Your task to perform on an android device: manage bookmarks in the chrome app Image 0: 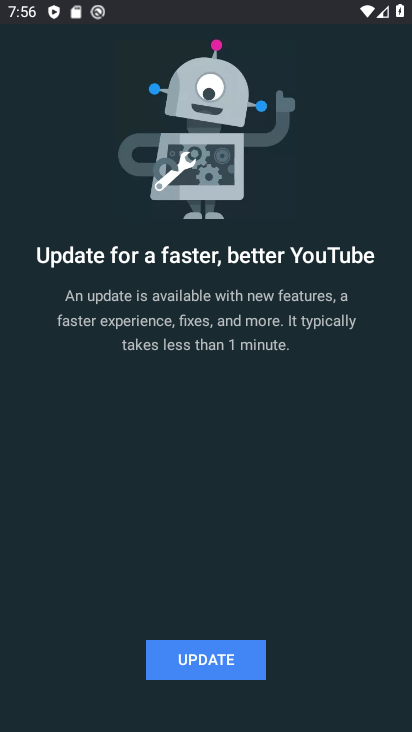
Step 0: press home button
Your task to perform on an android device: manage bookmarks in the chrome app Image 1: 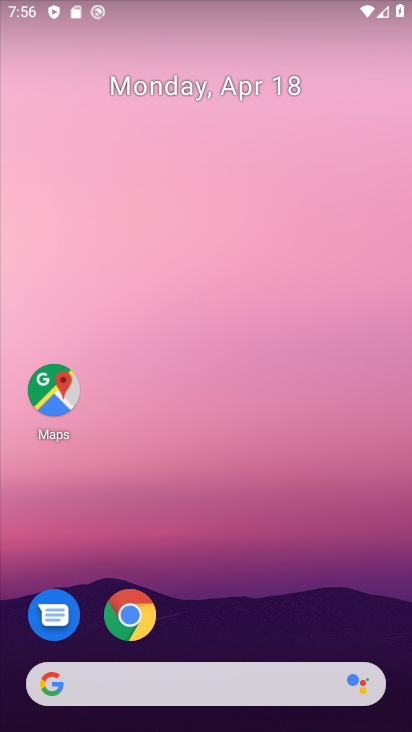
Step 1: click (134, 608)
Your task to perform on an android device: manage bookmarks in the chrome app Image 2: 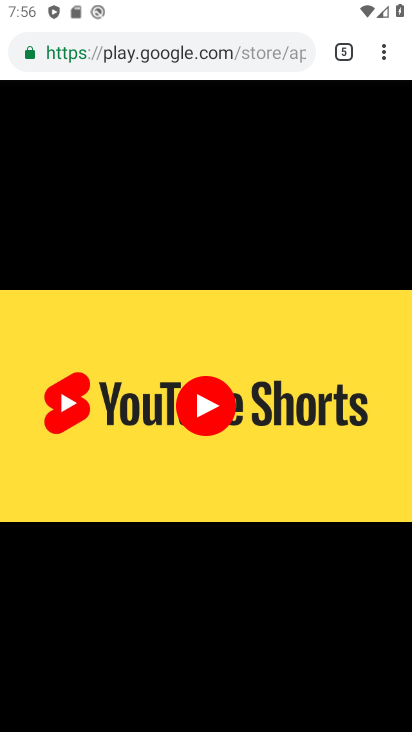
Step 2: click (385, 48)
Your task to perform on an android device: manage bookmarks in the chrome app Image 3: 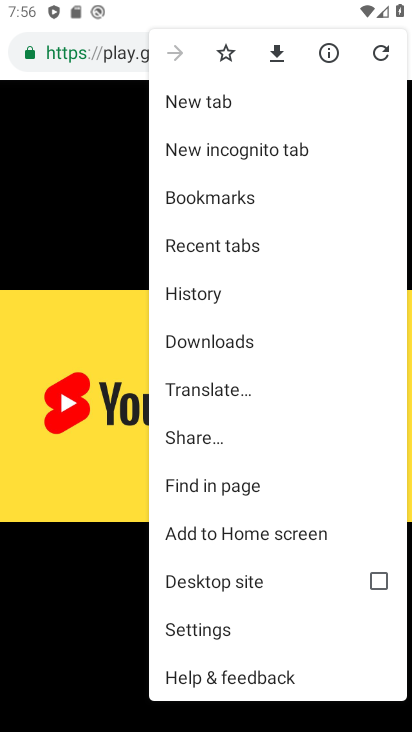
Step 3: click (251, 197)
Your task to perform on an android device: manage bookmarks in the chrome app Image 4: 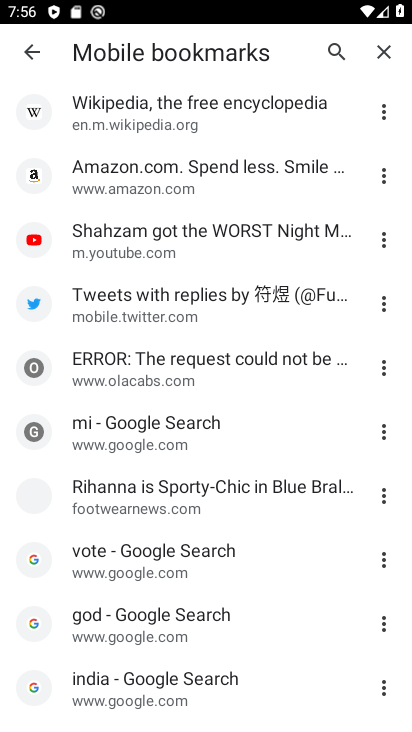
Step 4: click (379, 165)
Your task to perform on an android device: manage bookmarks in the chrome app Image 5: 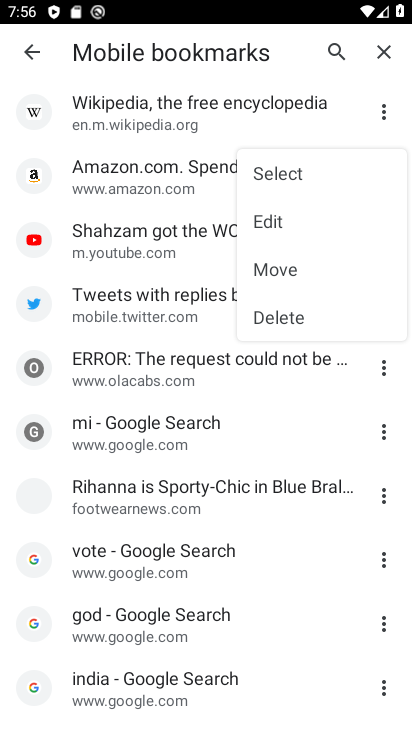
Step 5: click (326, 215)
Your task to perform on an android device: manage bookmarks in the chrome app Image 6: 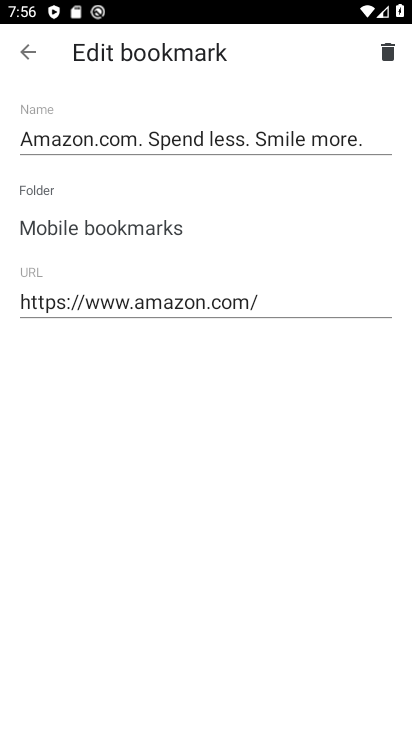
Step 6: click (24, 46)
Your task to perform on an android device: manage bookmarks in the chrome app Image 7: 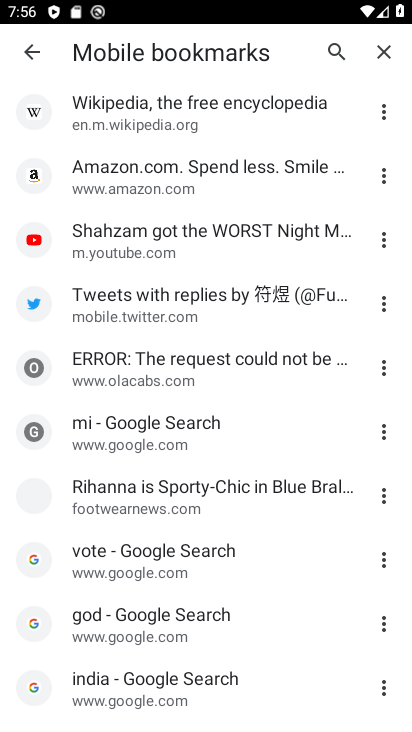
Step 7: task complete